Your task to perform on an android device: Open Youtube and go to "Your channel" Image 0: 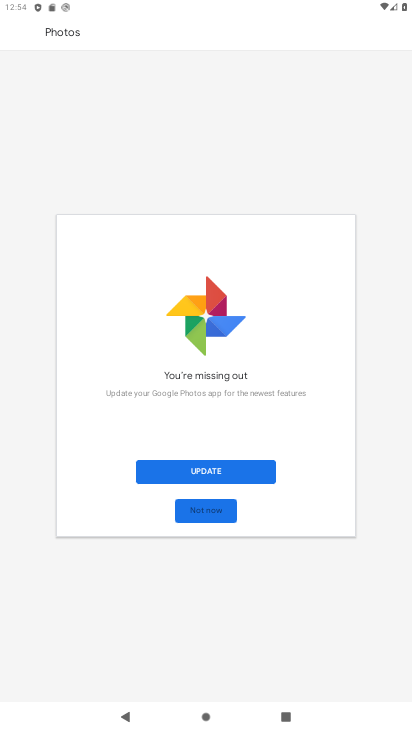
Step 0: press home button
Your task to perform on an android device: Open Youtube and go to "Your channel" Image 1: 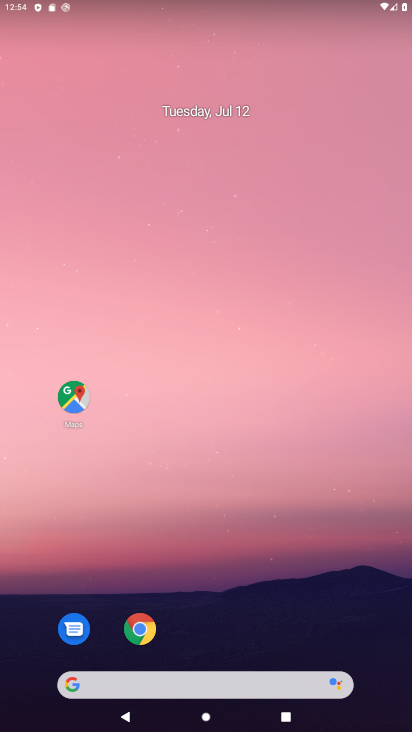
Step 1: drag from (225, 654) to (244, 9)
Your task to perform on an android device: Open Youtube and go to "Your channel" Image 2: 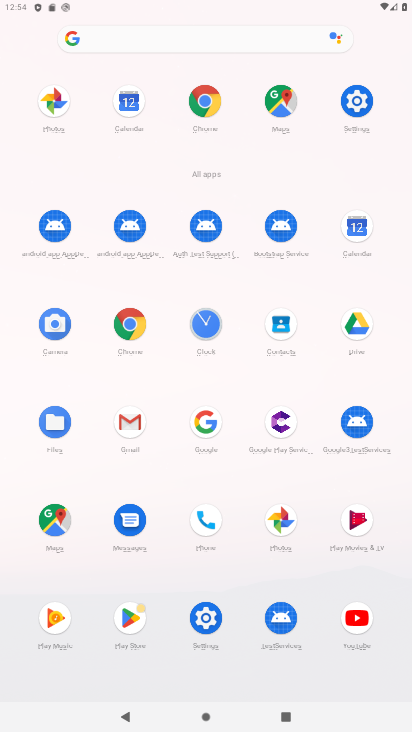
Step 2: click (356, 612)
Your task to perform on an android device: Open Youtube and go to "Your channel" Image 3: 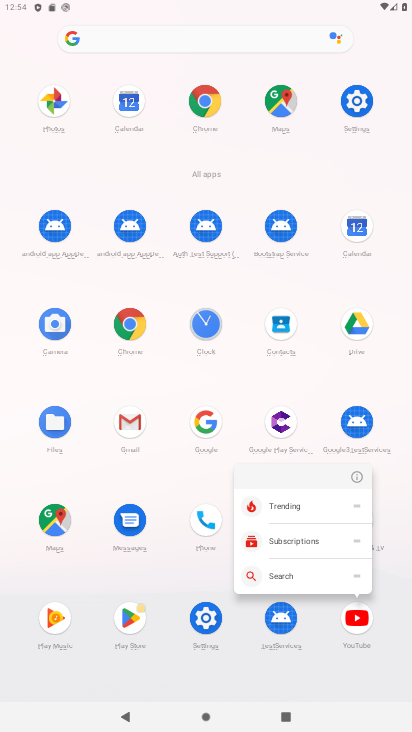
Step 3: click (354, 614)
Your task to perform on an android device: Open Youtube and go to "Your channel" Image 4: 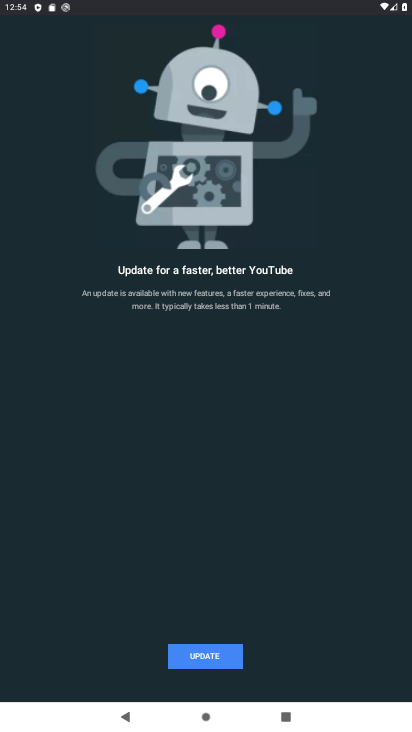
Step 4: click (207, 650)
Your task to perform on an android device: Open Youtube and go to "Your channel" Image 5: 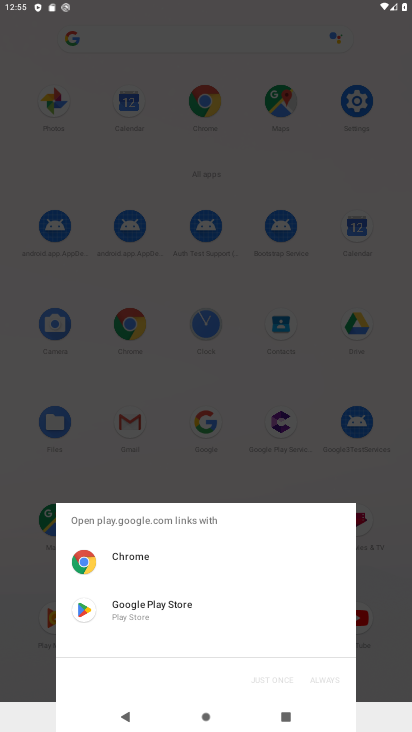
Step 5: click (141, 607)
Your task to perform on an android device: Open Youtube and go to "Your channel" Image 6: 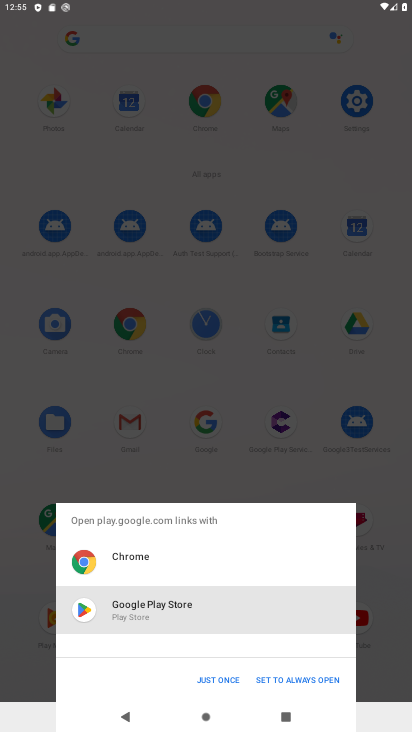
Step 6: click (222, 677)
Your task to perform on an android device: Open Youtube and go to "Your channel" Image 7: 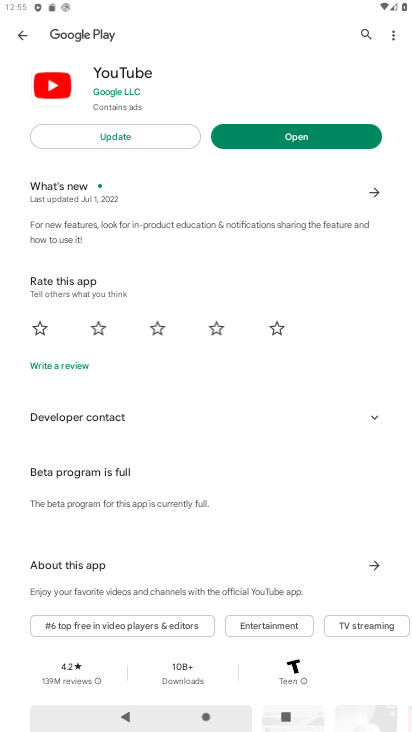
Step 7: click (103, 130)
Your task to perform on an android device: Open Youtube and go to "Your channel" Image 8: 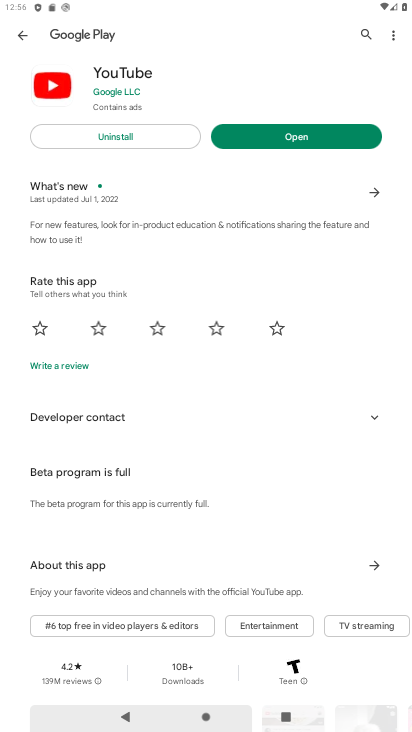
Step 8: click (302, 132)
Your task to perform on an android device: Open Youtube and go to "Your channel" Image 9: 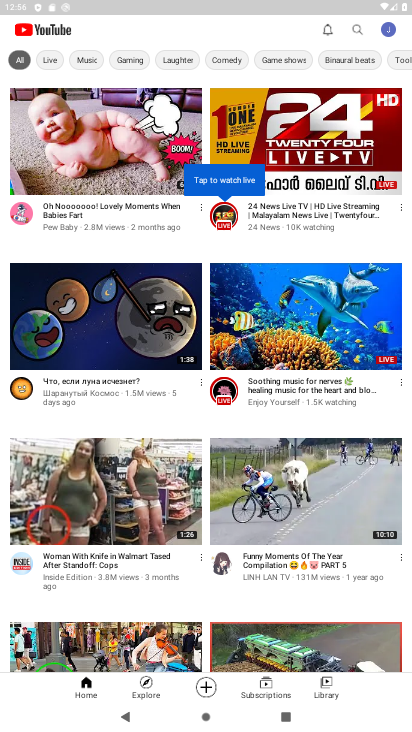
Step 9: click (387, 30)
Your task to perform on an android device: Open Youtube and go to "Your channel" Image 10: 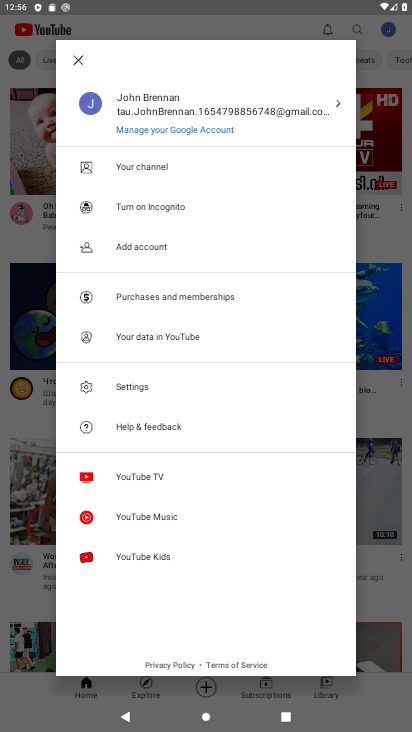
Step 10: click (175, 168)
Your task to perform on an android device: Open Youtube and go to "Your channel" Image 11: 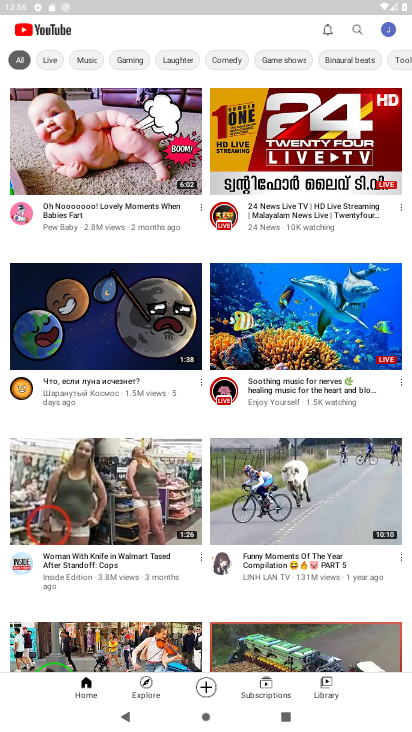
Step 11: click (392, 31)
Your task to perform on an android device: Open Youtube and go to "Your channel" Image 12: 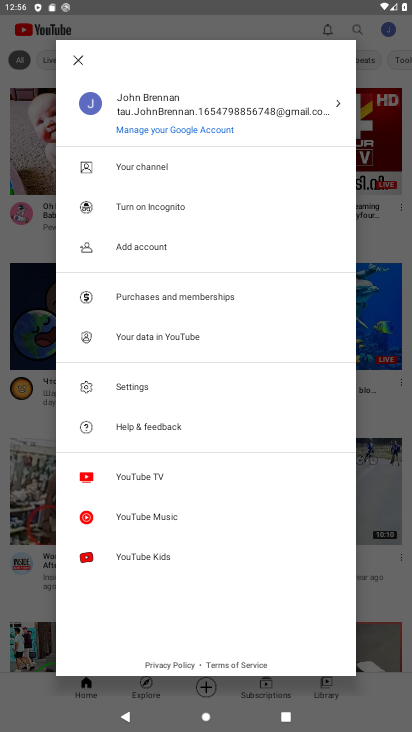
Step 12: click (137, 168)
Your task to perform on an android device: Open Youtube and go to "Your channel" Image 13: 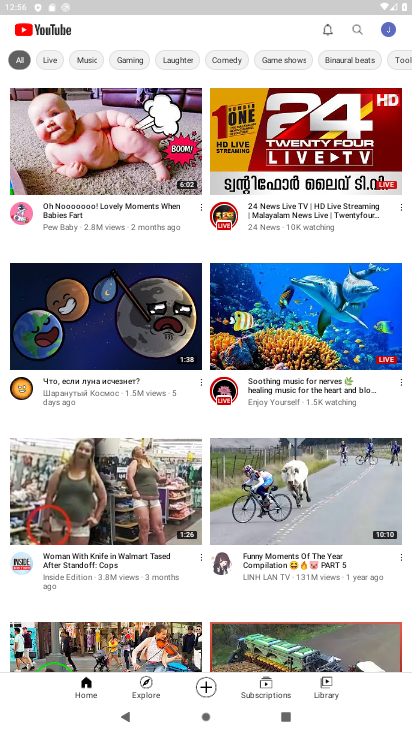
Step 13: task complete